Your task to perform on an android device: open the mobile data screen to see how much data has been used Image 0: 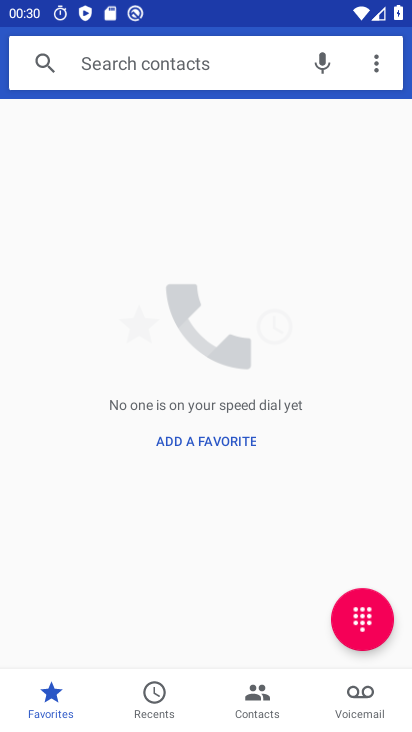
Step 0: press home button
Your task to perform on an android device: open the mobile data screen to see how much data has been used Image 1: 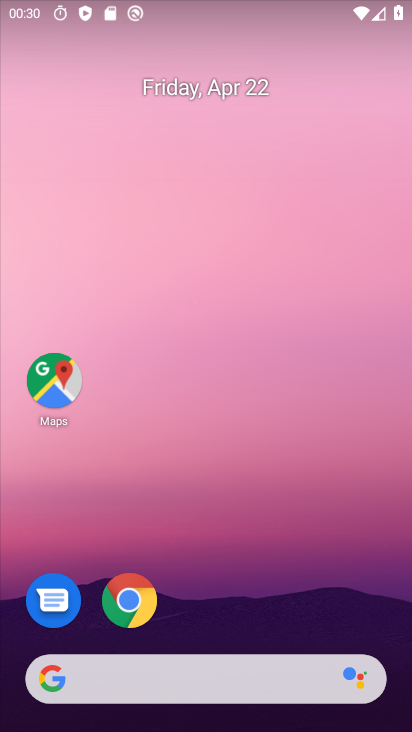
Step 1: drag from (208, 530) to (232, 9)
Your task to perform on an android device: open the mobile data screen to see how much data has been used Image 2: 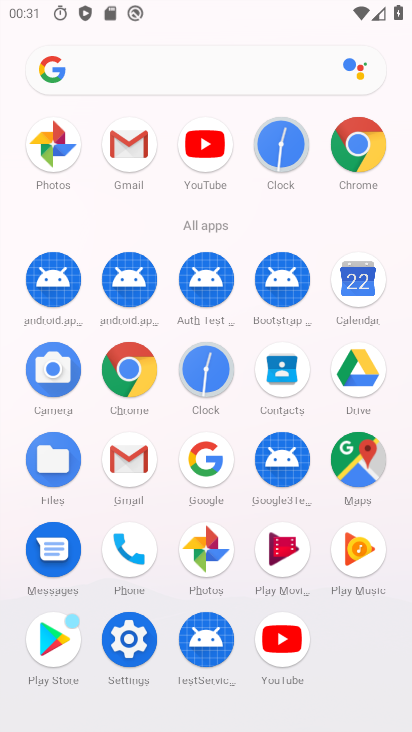
Step 2: click (129, 646)
Your task to perform on an android device: open the mobile data screen to see how much data has been used Image 3: 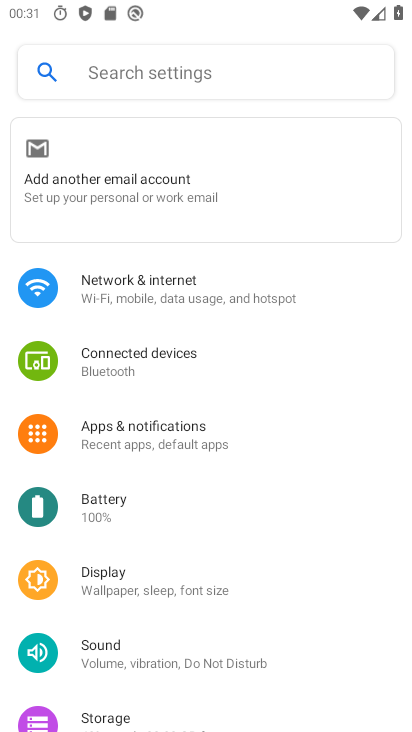
Step 3: click (218, 277)
Your task to perform on an android device: open the mobile data screen to see how much data has been used Image 4: 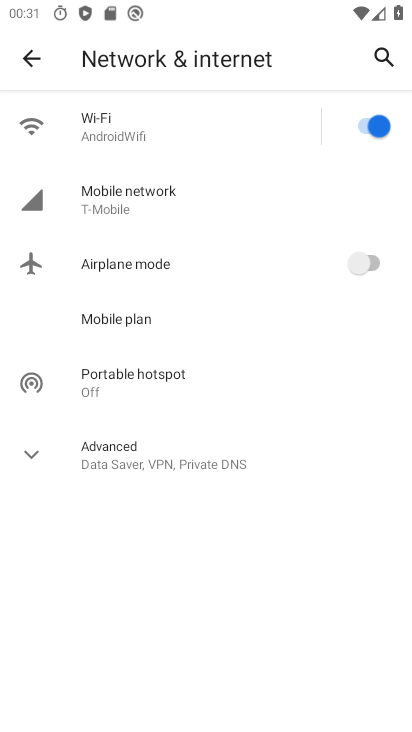
Step 4: click (152, 206)
Your task to perform on an android device: open the mobile data screen to see how much data has been used Image 5: 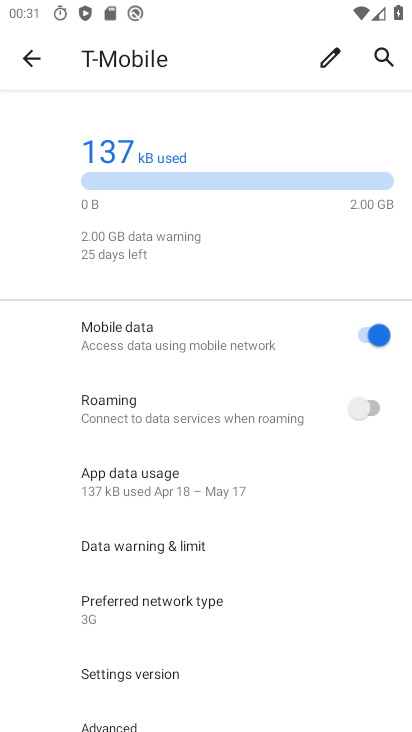
Step 5: task complete